Your task to perform on an android device: Go to Amazon Image 0: 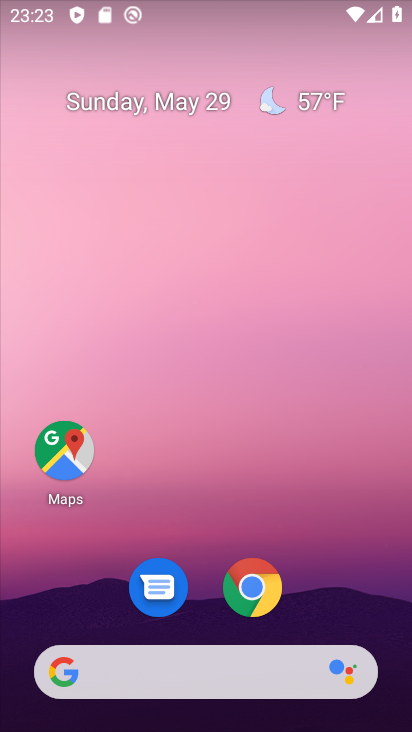
Step 0: drag from (292, 187) to (270, 84)
Your task to perform on an android device: Go to Amazon Image 1: 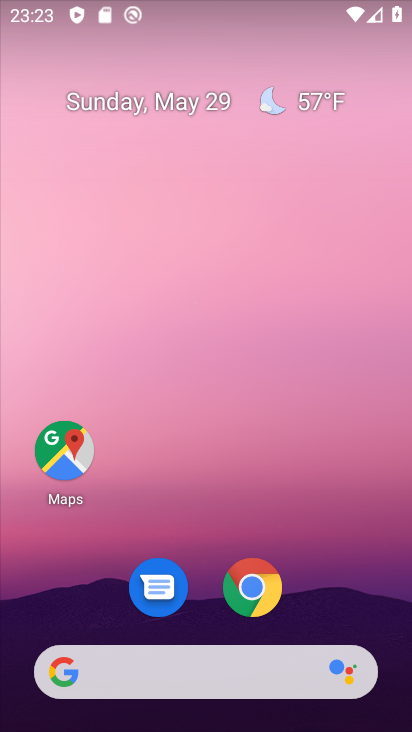
Step 1: click (246, 570)
Your task to perform on an android device: Go to Amazon Image 2: 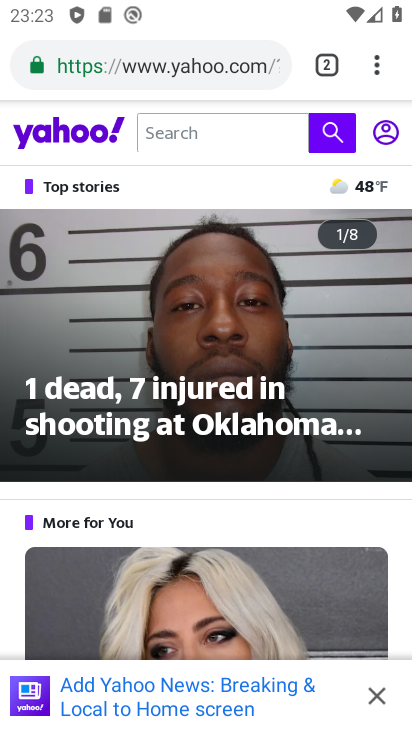
Step 2: click (330, 66)
Your task to perform on an android device: Go to Amazon Image 3: 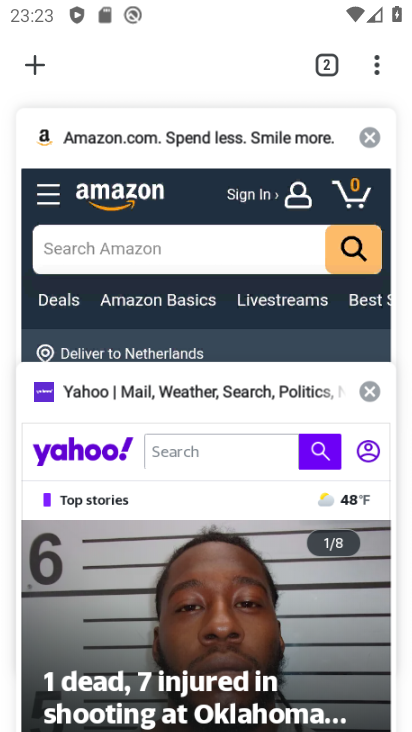
Step 3: click (279, 172)
Your task to perform on an android device: Go to Amazon Image 4: 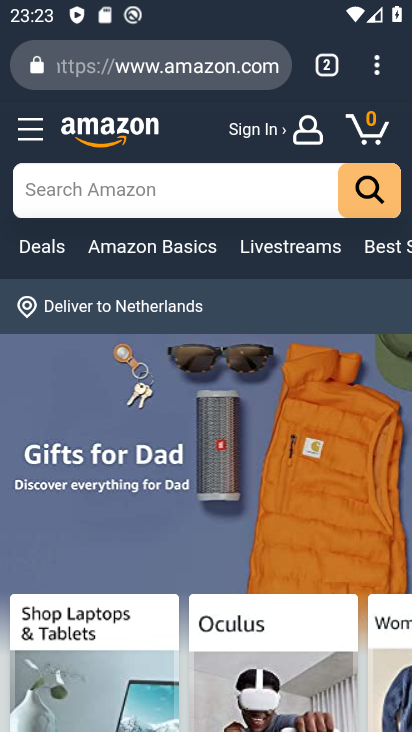
Step 4: task complete